Your task to perform on an android device: Open Google Chrome and open the bookmarks view Image 0: 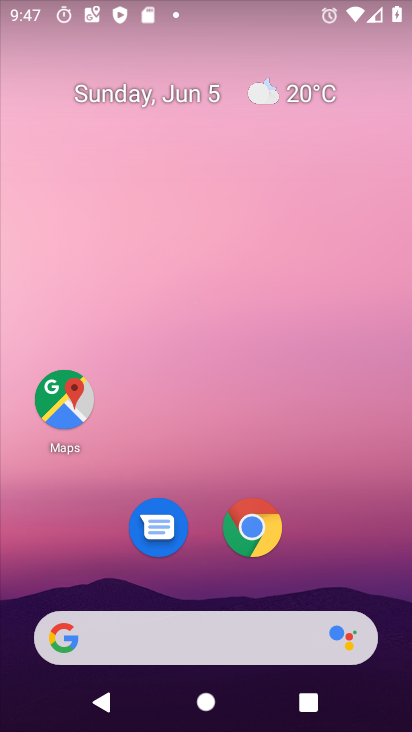
Step 0: drag from (351, 512) to (254, 0)
Your task to perform on an android device: Open Google Chrome and open the bookmarks view Image 1: 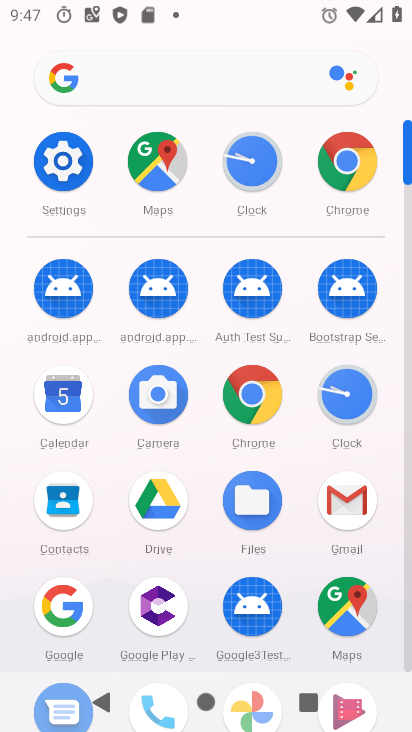
Step 1: click (240, 410)
Your task to perform on an android device: Open Google Chrome and open the bookmarks view Image 2: 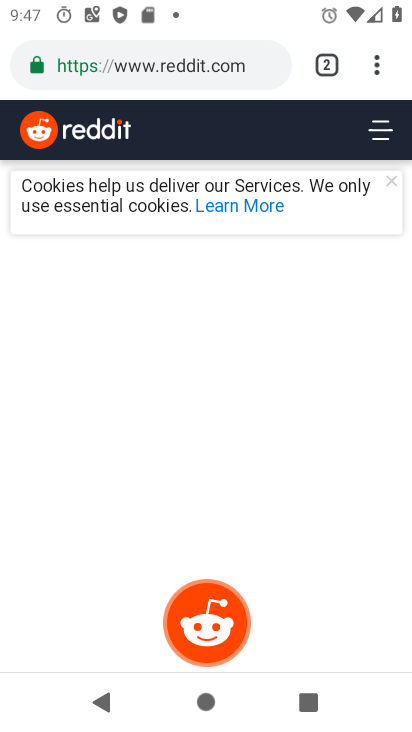
Step 2: task complete